Your task to perform on an android device: Open settings Image 0: 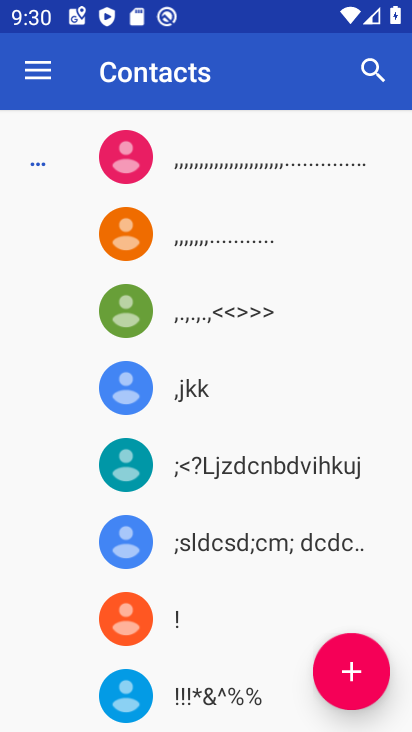
Step 0: press home button
Your task to perform on an android device: Open settings Image 1: 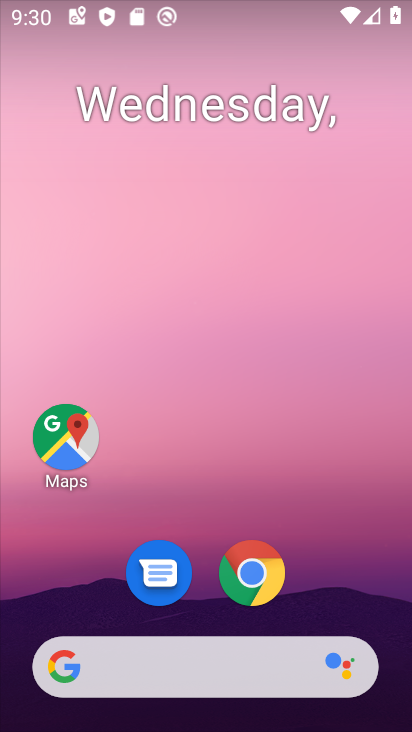
Step 1: drag from (354, 597) to (320, 42)
Your task to perform on an android device: Open settings Image 2: 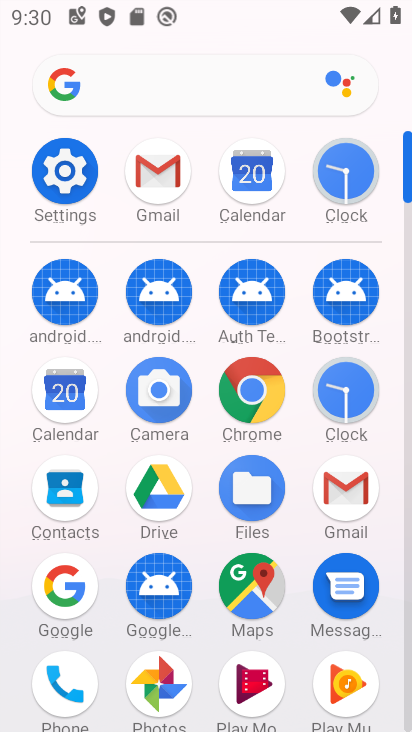
Step 2: click (82, 171)
Your task to perform on an android device: Open settings Image 3: 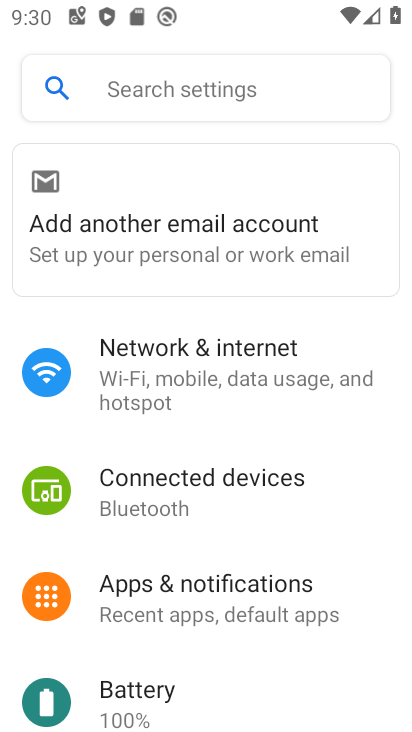
Step 3: task complete